Your task to perform on an android device: turn on priority inbox in the gmail app Image 0: 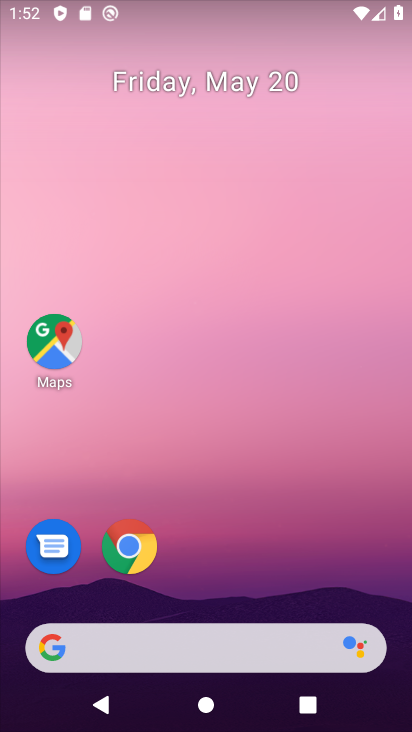
Step 0: click (149, 24)
Your task to perform on an android device: turn on priority inbox in the gmail app Image 1: 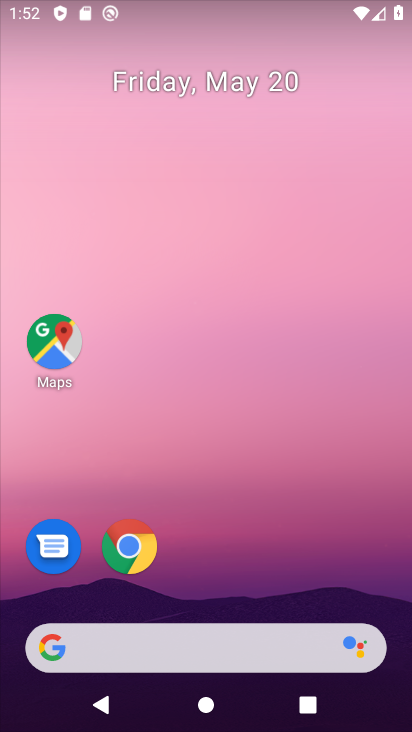
Step 1: drag from (269, 477) to (205, 31)
Your task to perform on an android device: turn on priority inbox in the gmail app Image 2: 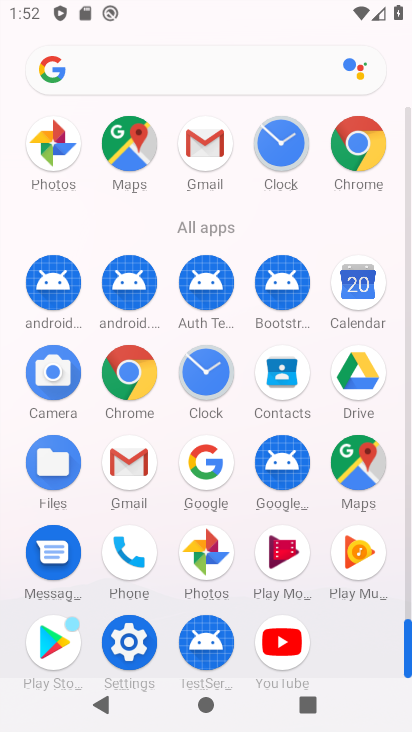
Step 2: drag from (24, 554) to (13, 183)
Your task to perform on an android device: turn on priority inbox in the gmail app Image 3: 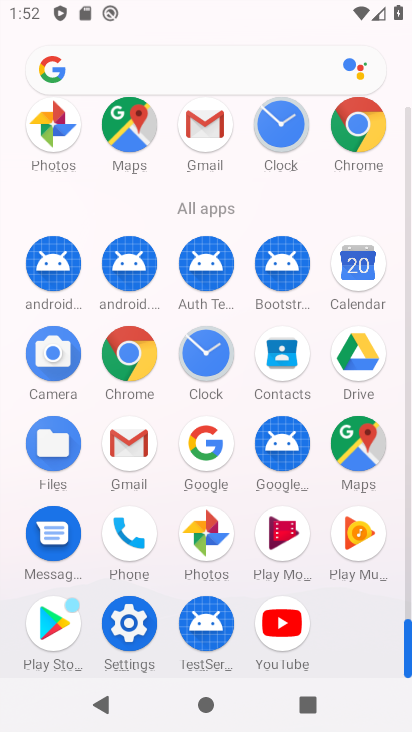
Step 3: click (126, 440)
Your task to perform on an android device: turn on priority inbox in the gmail app Image 4: 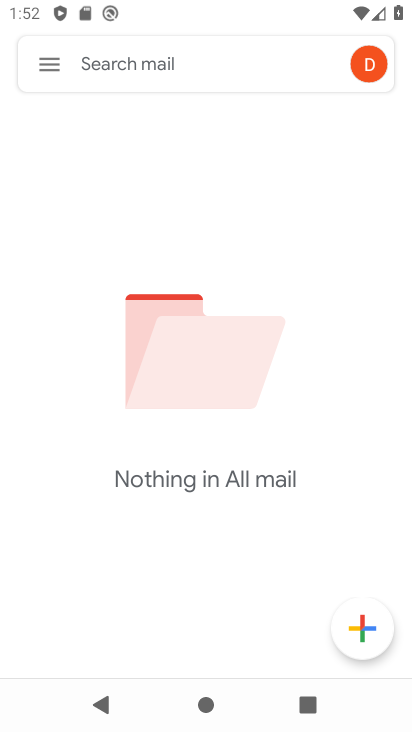
Step 4: click (40, 55)
Your task to perform on an android device: turn on priority inbox in the gmail app Image 5: 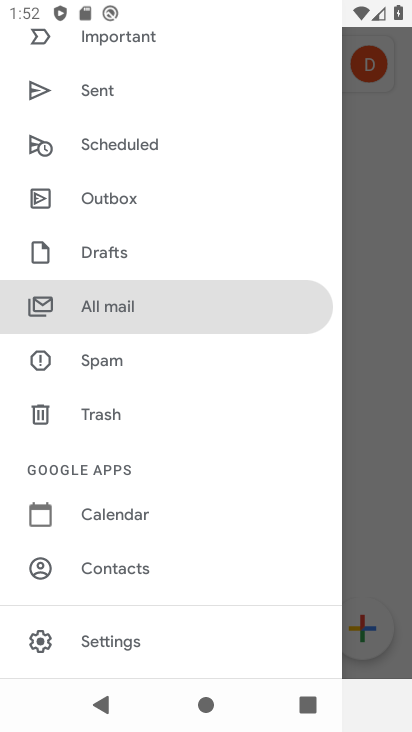
Step 5: drag from (193, 531) to (182, 114)
Your task to perform on an android device: turn on priority inbox in the gmail app Image 6: 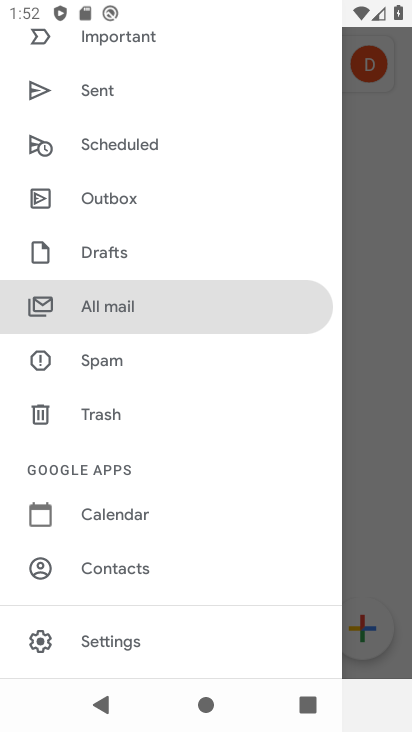
Step 6: click (99, 638)
Your task to perform on an android device: turn on priority inbox in the gmail app Image 7: 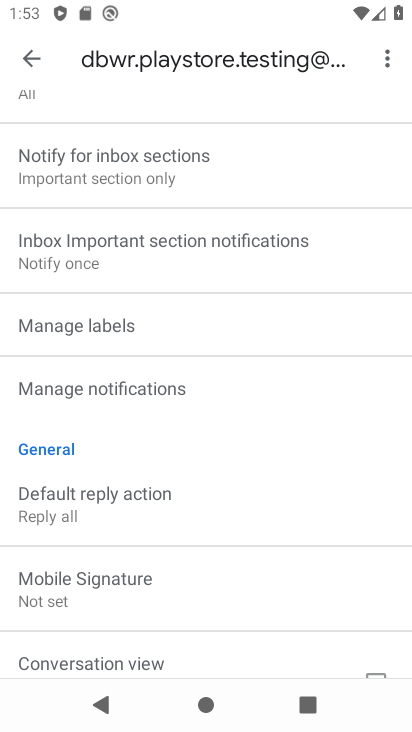
Step 7: task complete